Your task to perform on an android device: Open location settings Image 0: 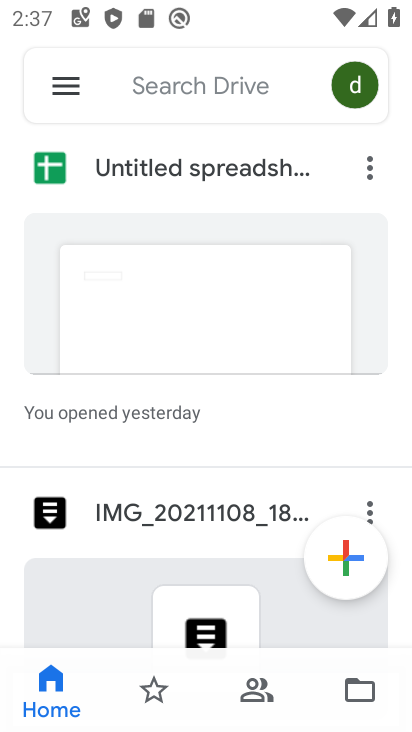
Step 0: press home button
Your task to perform on an android device: Open location settings Image 1: 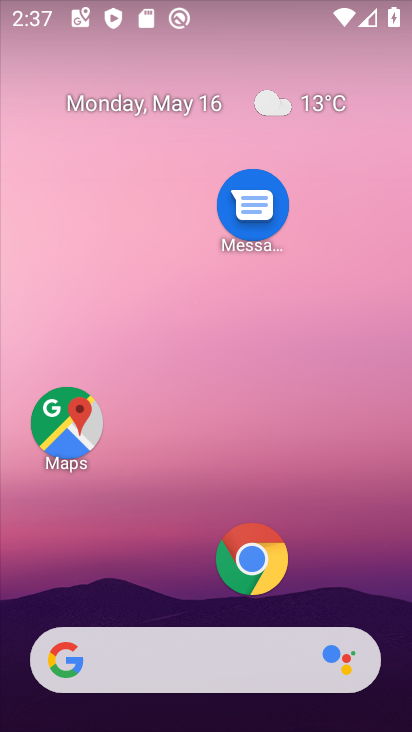
Step 1: drag from (168, 576) to (202, 195)
Your task to perform on an android device: Open location settings Image 2: 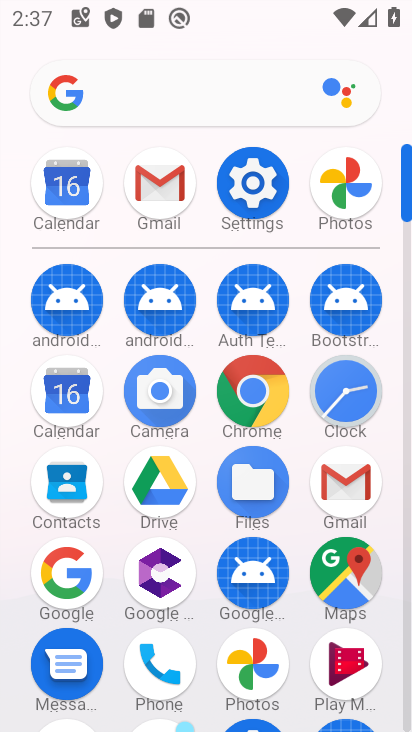
Step 2: click (254, 181)
Your task to perform on an android device: Open location settings Image 3: 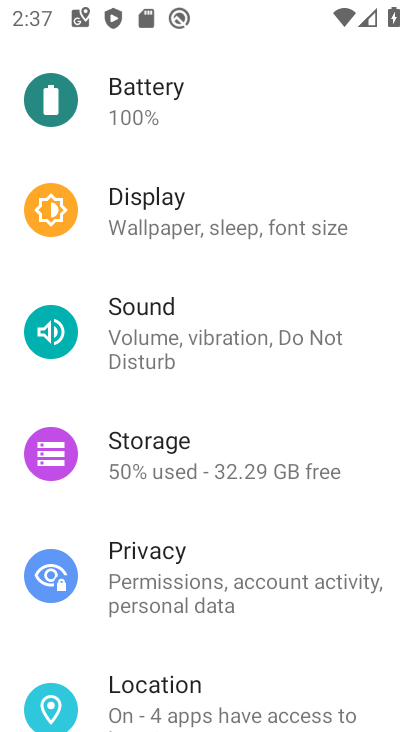
Step 3: click (122, 701)
Your task to perform on an android device: Open location settings Image 4: 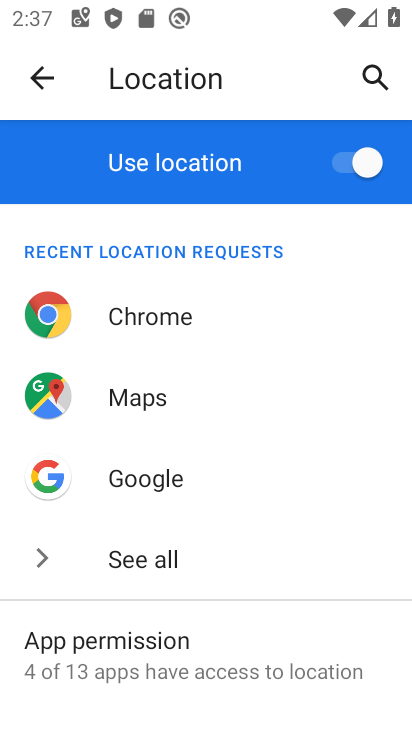
Step 4: task complete